Your task to perform on an android device: Open calendar and show me the fourth week of next month Image 0: 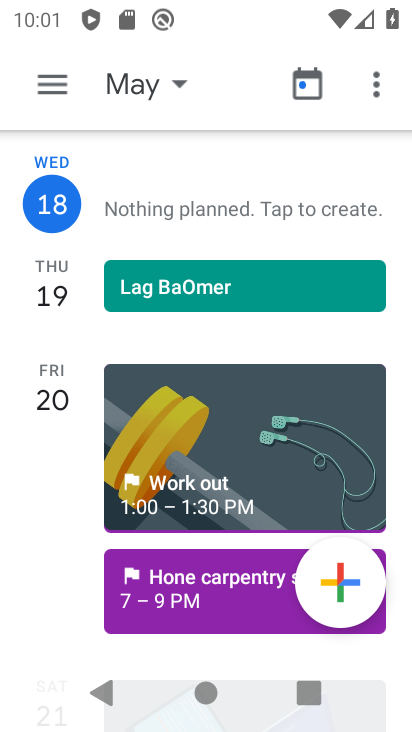
Step 0: click (46, 82)
Your task to perform on an android device: Open calendar and show me the fourth week of next month Image 1: 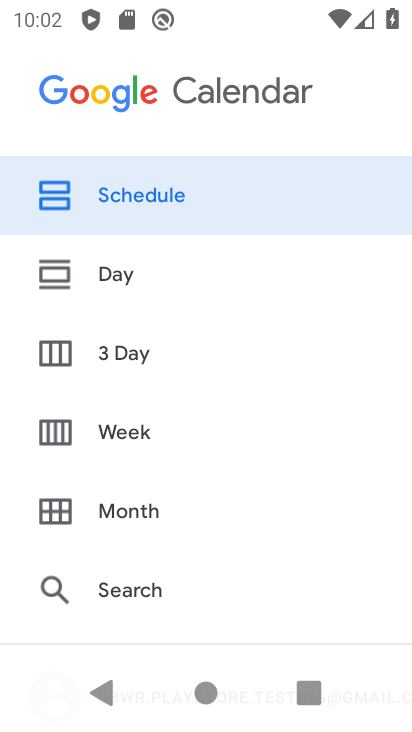
Step 1: click (126, 428)
Your task to perform on an android device: Open calendar and show me the fourth week of next month Image 2: 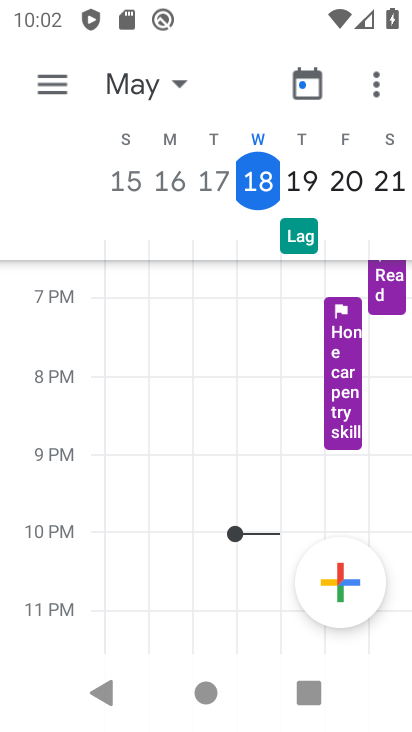
Step 2: click (135, 84)
Your task to perform on an android device: Open calendar and show me the fourth week of next month Image 3: 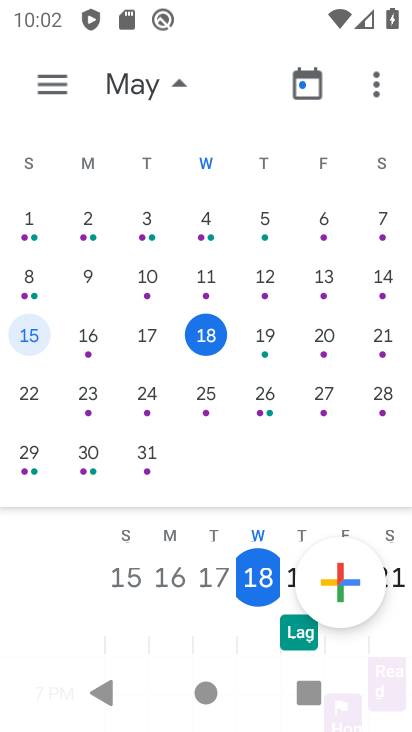
Step 3: drag from (347, 337) to (7, 320)
Your task to perform on an android device: Open calendar and show me the fourth week of next month Image 4: 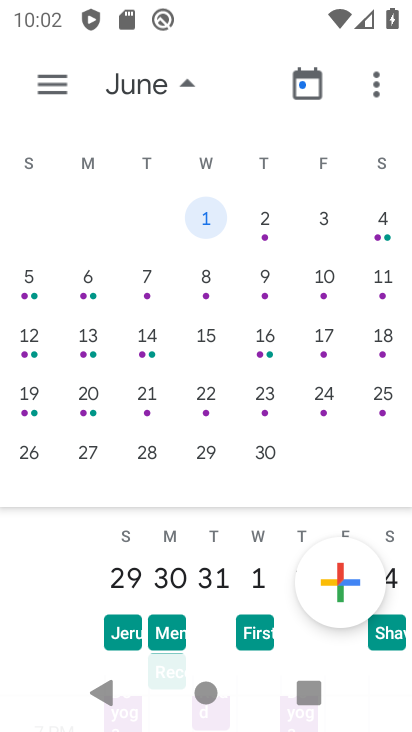
Step 4: click (89, 444)
Your task to perform on an android device: Open calendar and show me the fourth week of next month Image 5: 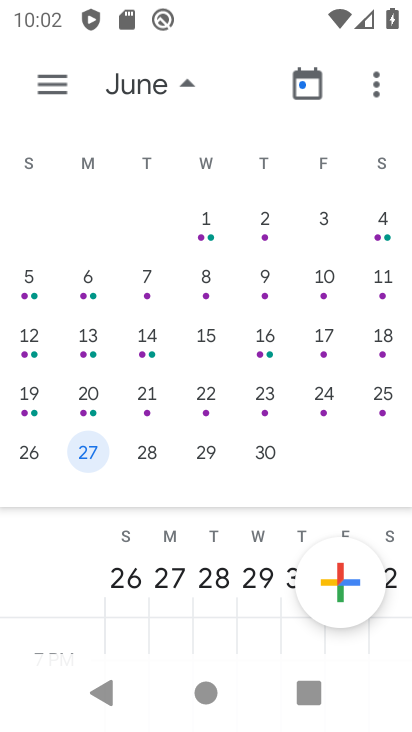
Step 5: click (181, 81)
Your task to perform on an android device: Open calendar and show me the fourth week of next month Image 6: 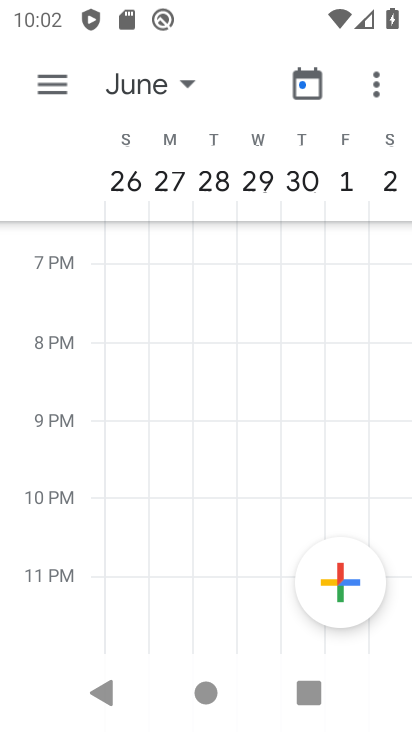
Step 6: task complete